Your task to perform on an android device: turn off location Image 0: 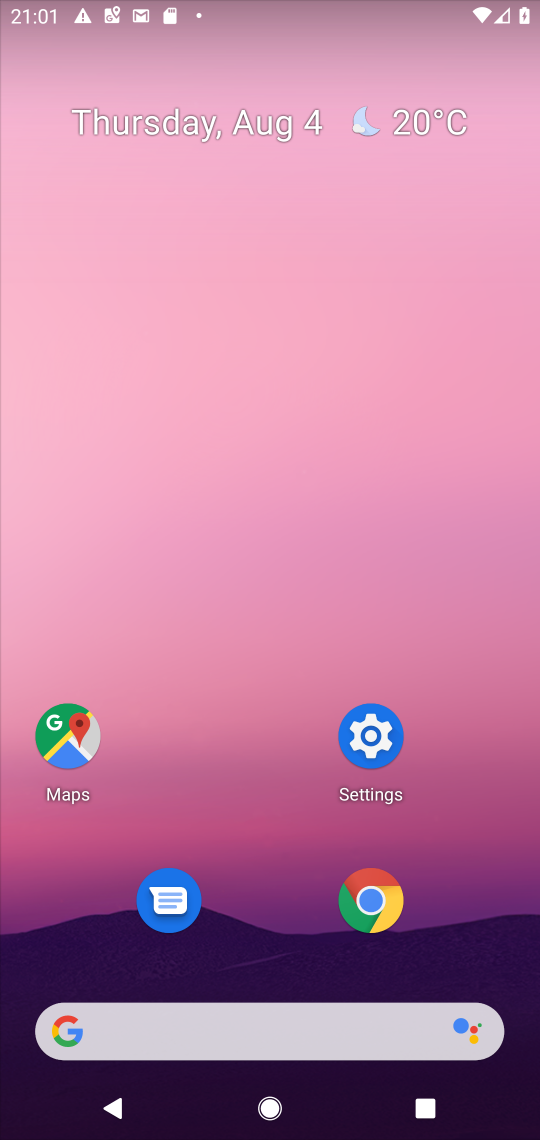
Step 0: click (361, 734)
Your task to perform on an android device: turn off location Image 1: 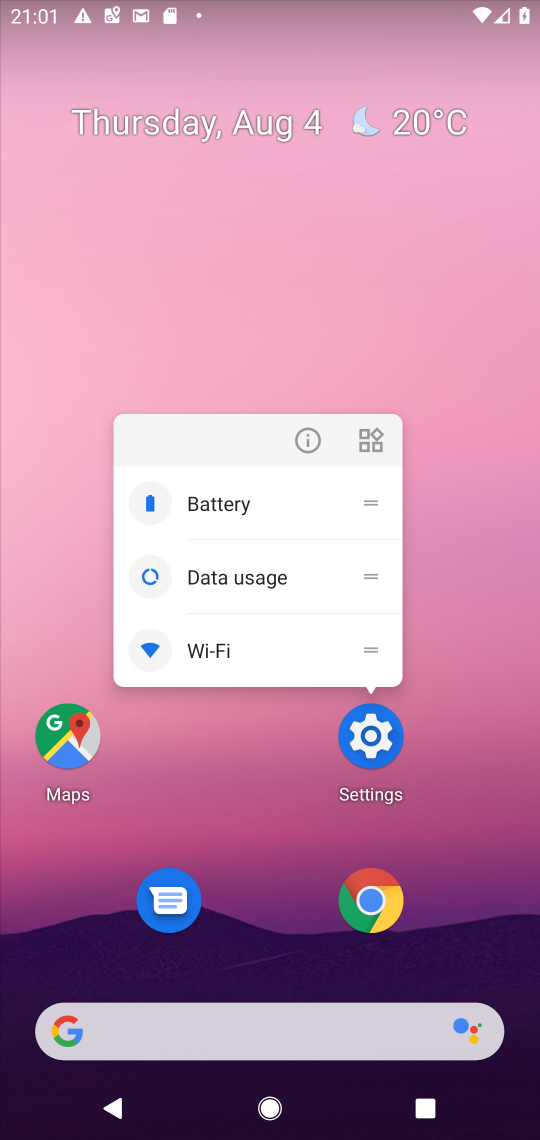
Step 1: click (363, 733)
Your task to perform on an android device: turn off location Image 2: 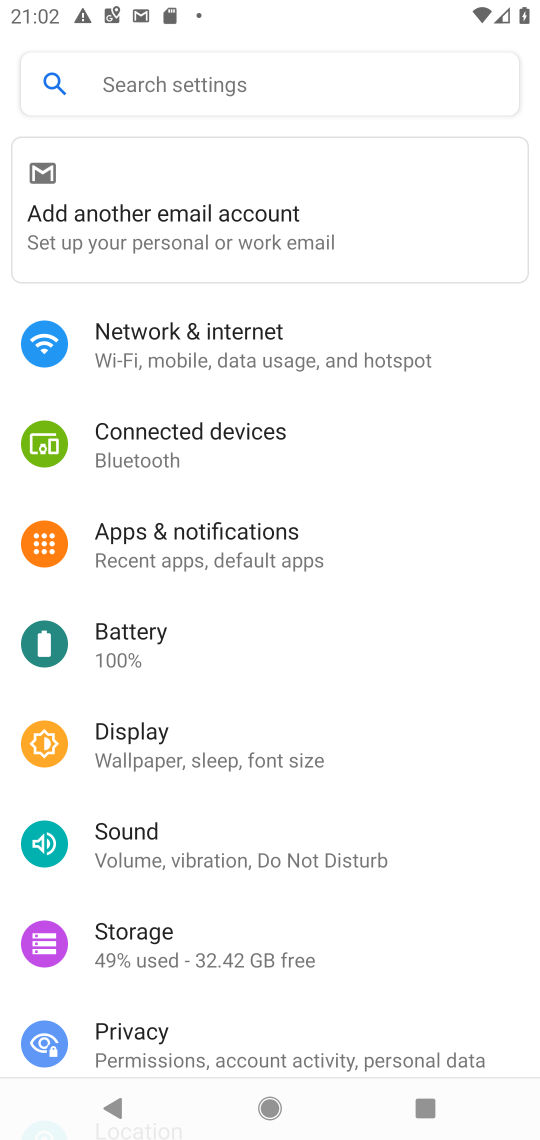
Step 2: drag from (185, 1032) to (294, 290)
Your task to perform on an android device: turn off location Image 3: 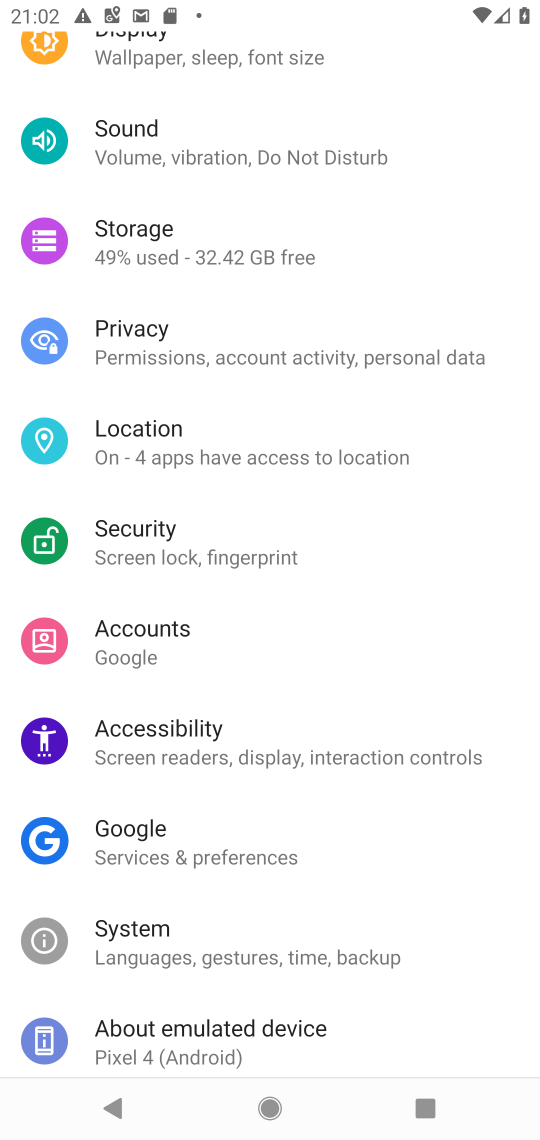
Step 3: drag from (239, 855) to (263, 589)
Your task to perform on an android device: turn off location Image 4: 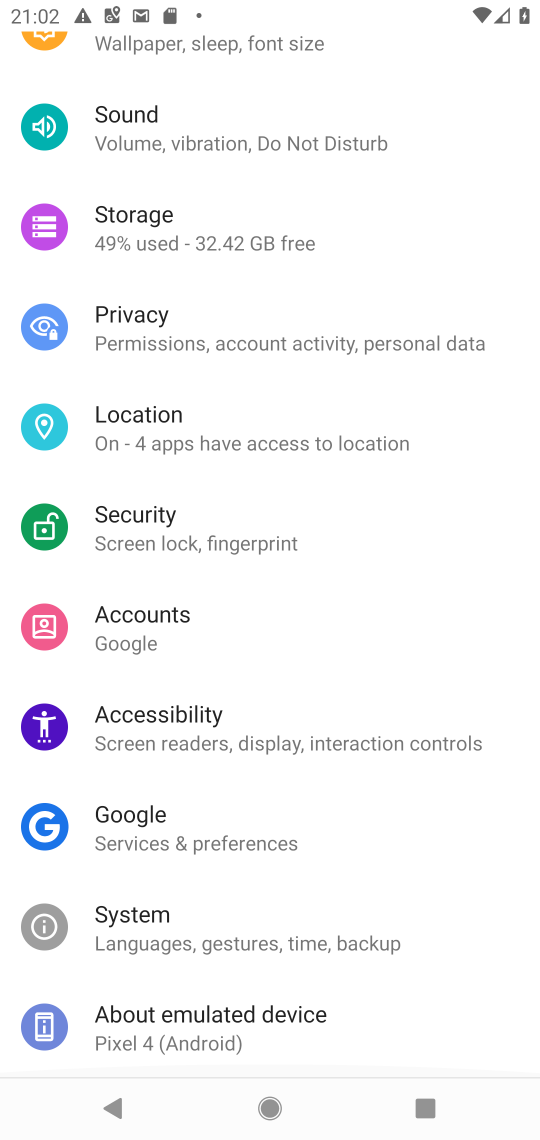
Step 4: click (166, 424)
Your task to perform on an android device: turn off location Image 5: 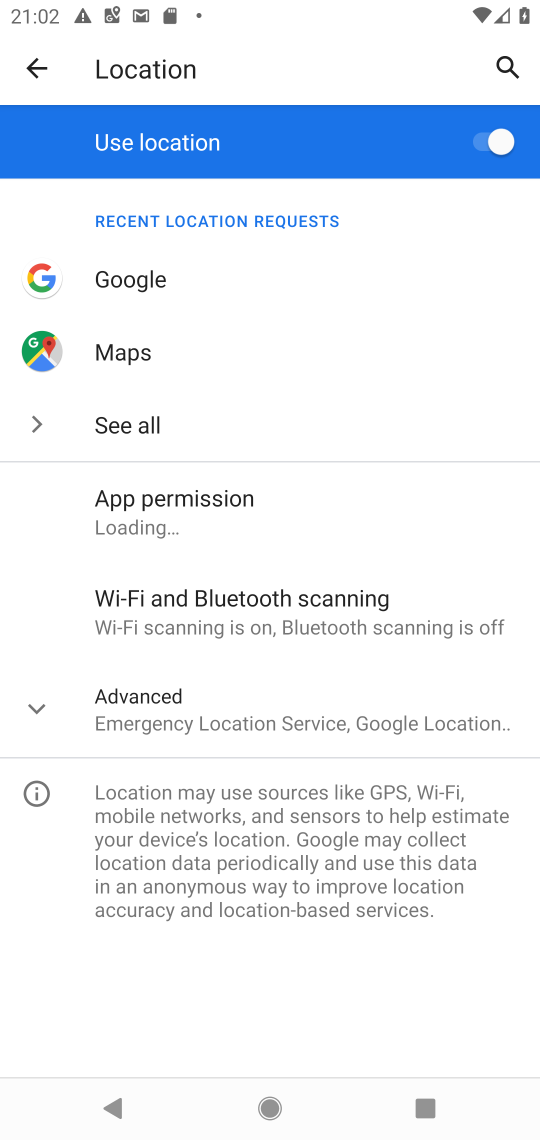
Step 5: click (482, 143)
Your task to perform on an android device: turn off location Image 6: 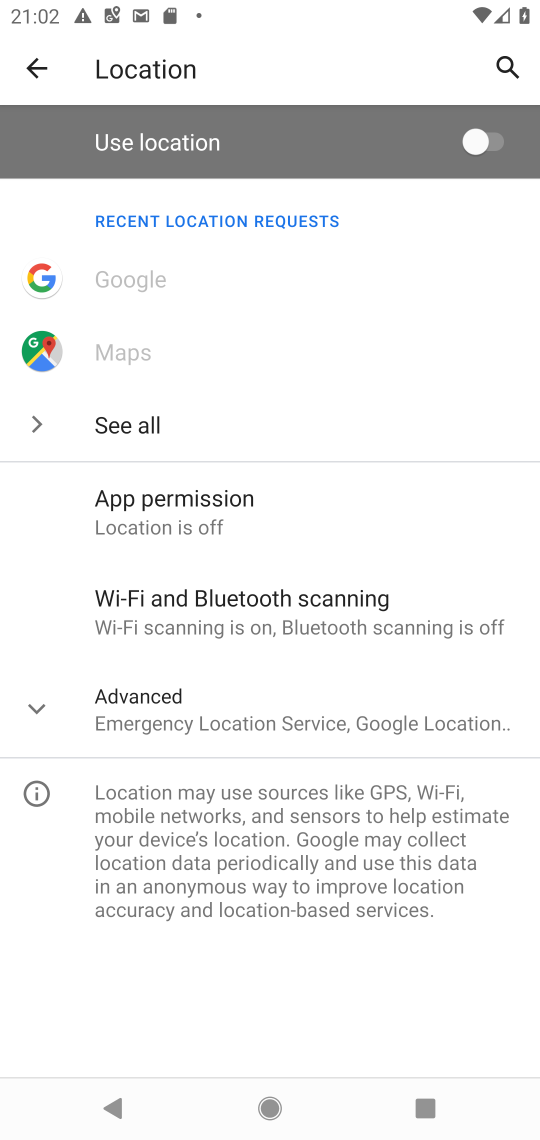
Step 6: task complete